Your task to perform on an android device: change keyboard looks Image 0: 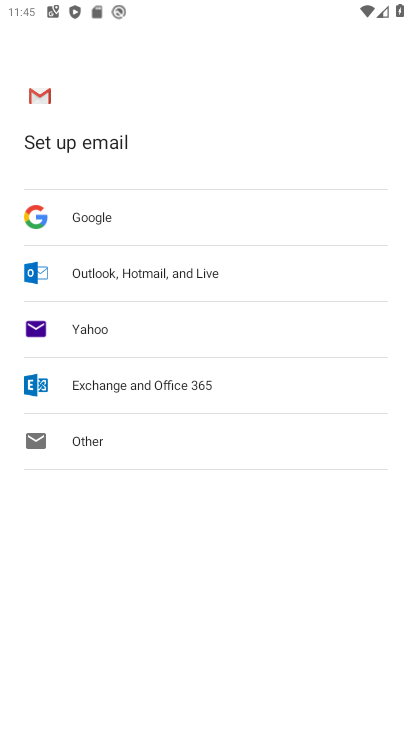
Step 0: press home button
Your task to perform on an android device: change keyboard looks Image 1: 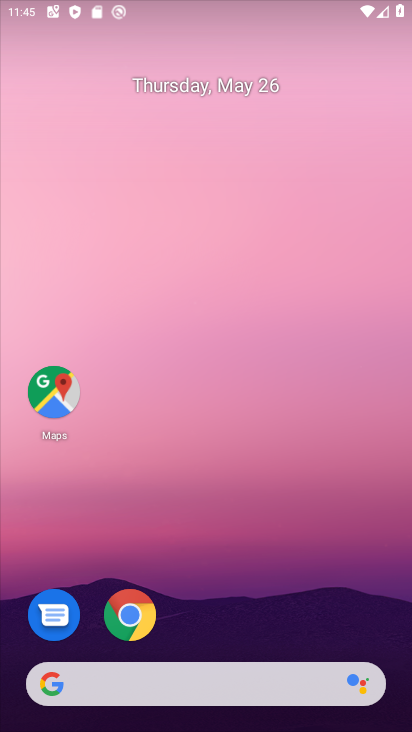
Step 1: drag from (297, 615) to (231, 193)
Your task to perform on an android device: change keyboard looks Image 2: 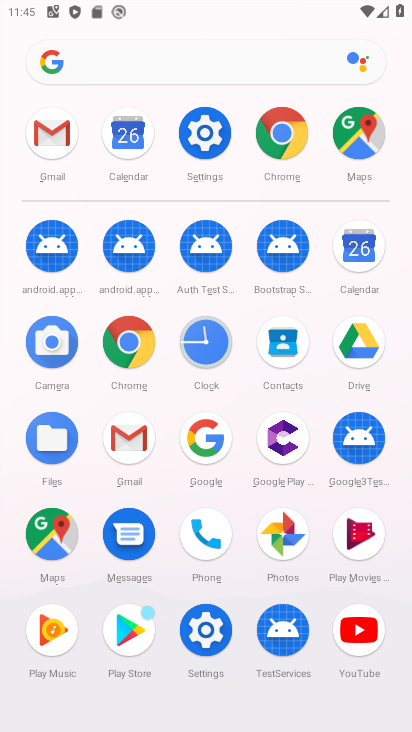
Step 2: click (185, 139)
Your task to perform on an android device: change keyboard looks Image 3: 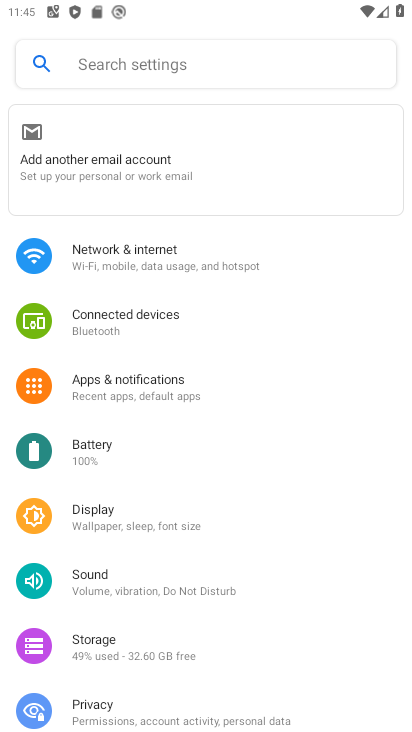
Step 3: drag from (183, 671) to (152, 281)
Your task to perform on an android device: change keyboard looks Image 4: 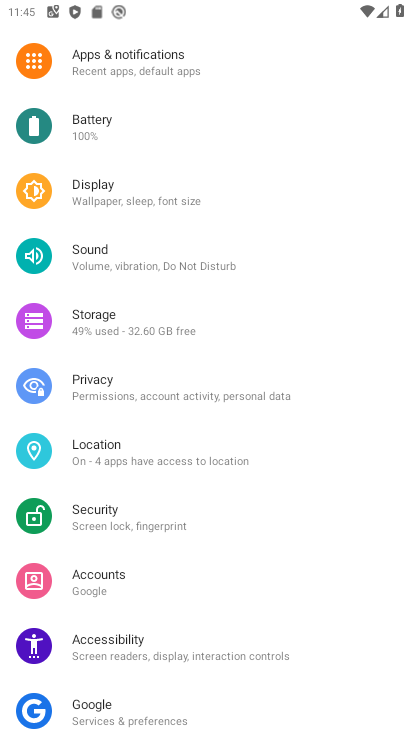
Step 4: drag from (220, 688) to (208, 224)
Your task to perform on an android device: change keyboard looks Image 5: 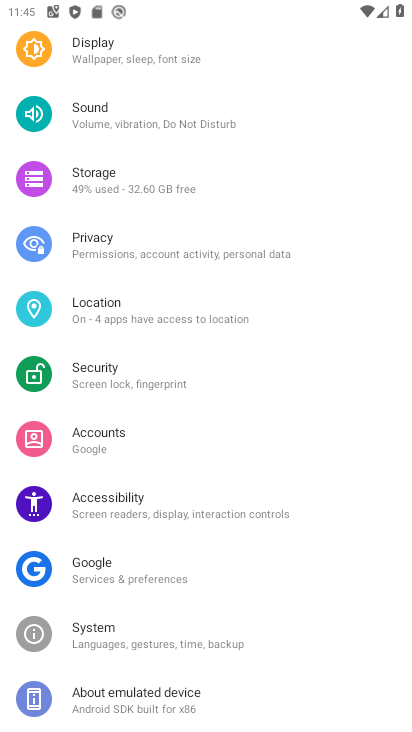
Step 5: click (217, 646)
Your task to perform on an android device: change keyboard looks Image 6: 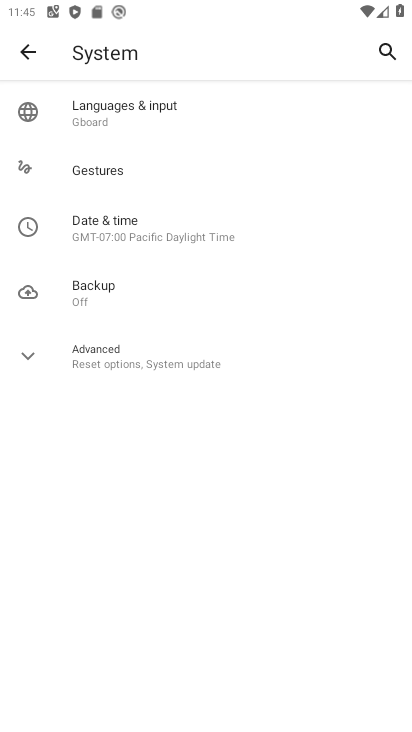
Step 6: click (121, 113)
Your task to perform on an android device: change keyboard looks Image 7: 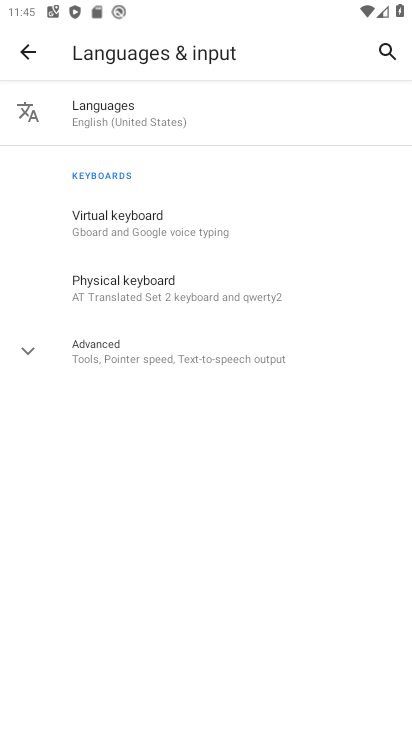
Step 7: click (147, 224)
Your task to perform on an android device: change keyboard looks Image 8: 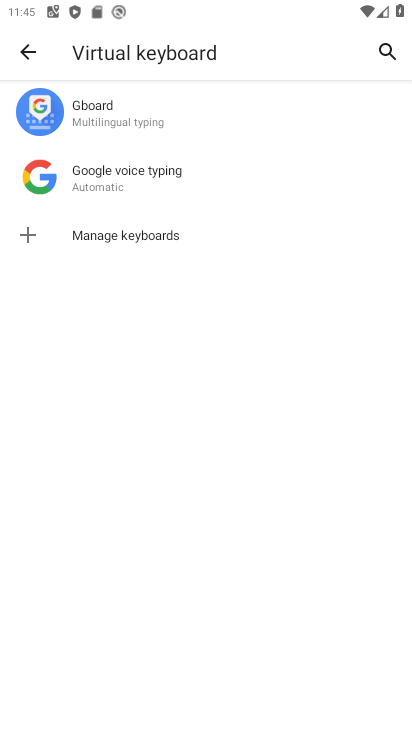
Step 8: click (133, 122)
Your task to perform on an android device: change keyboard looks Image 9: 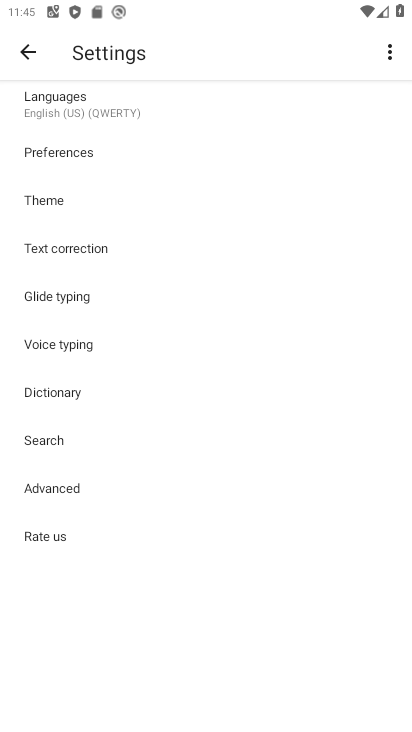
Step 9: click (104, 209)
Your task to perform on an android device: change keyboard looks Image 10: 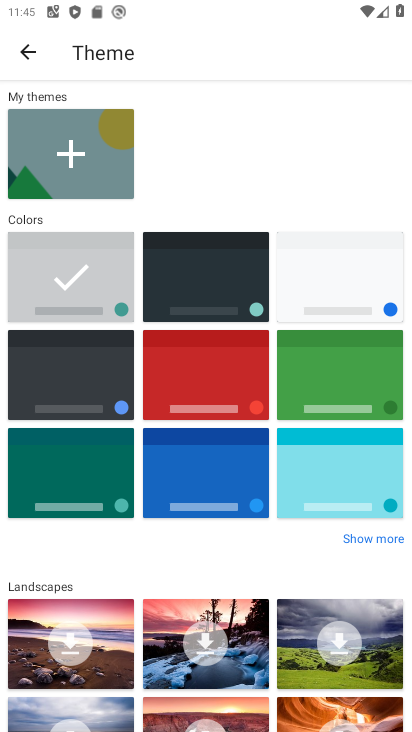
Step 10: click (204, 278)
Your task to perform on an android device: change keyboard looks Image 11: 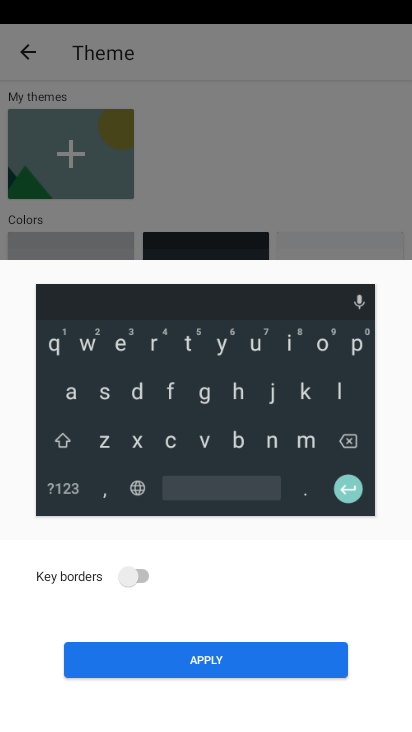
Step 11: click (237, 664)
Your task to perform on an android device: change keyboard looks Image 12: 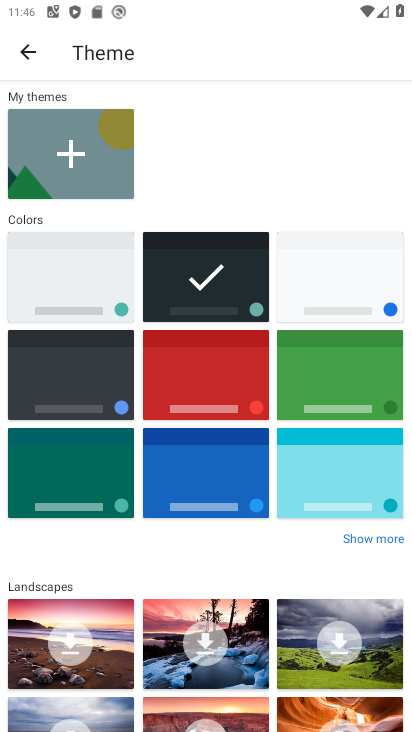
Step 12: task complete